Your task to perform on an android device: install app "File Manager" Image 0: 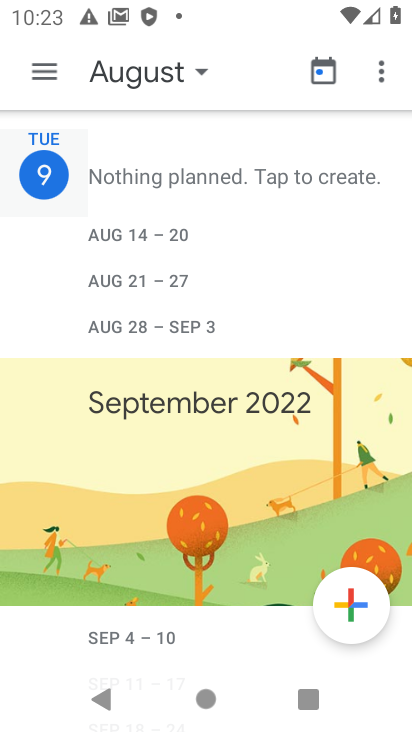
Step 0: press home button
Your task to perform on an android device: install app "File Manager" Image 1: 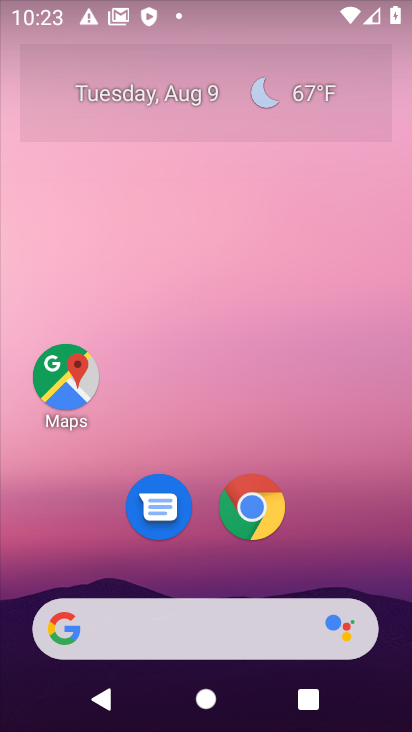
Step 1: drag from (69, 598) to (113, 156)
Your task to perform on an android device: install app "File Manager" Image 2: 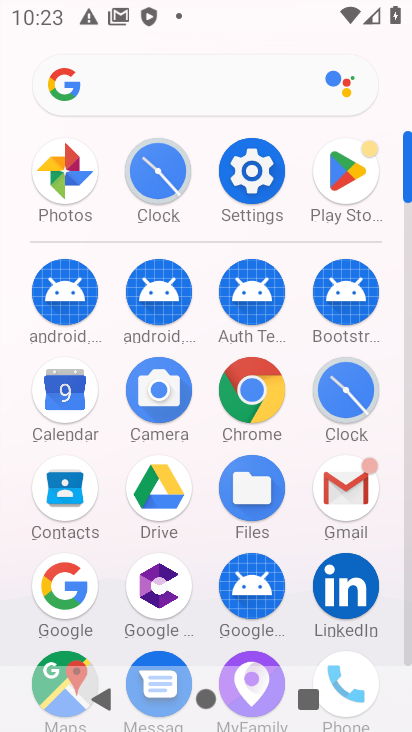
Step 2: click (375, 179)
Your task to perform on an android device: install app "File Manager" Image 3: 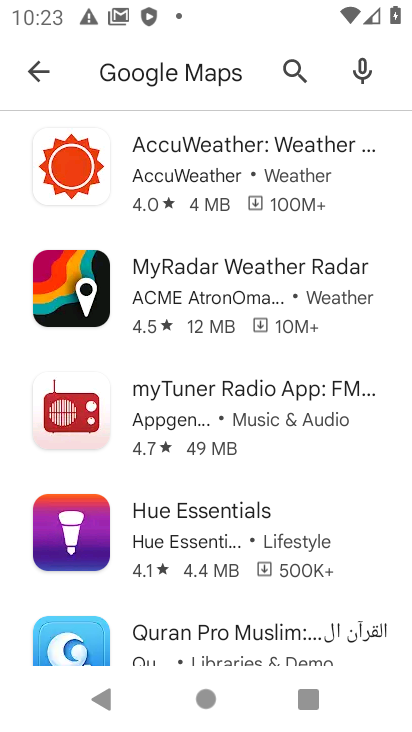
Step 3: click (27, 73)
Your task to perform on an android device: install app "File Manager" Image 4: 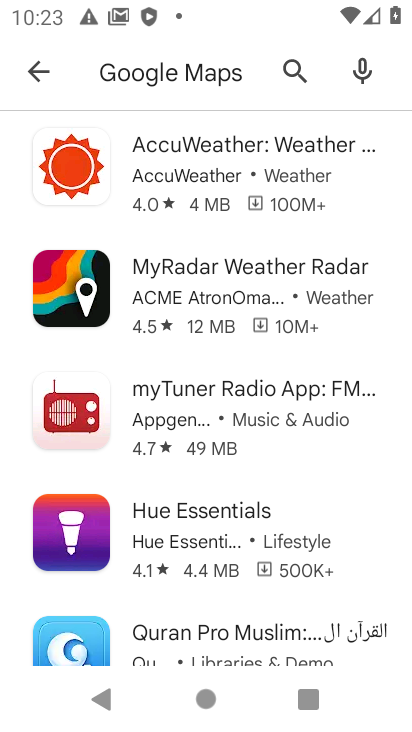
Step 4: click (296, 84)
Your task to perform on an android device: install app "File Manager" Image 5: 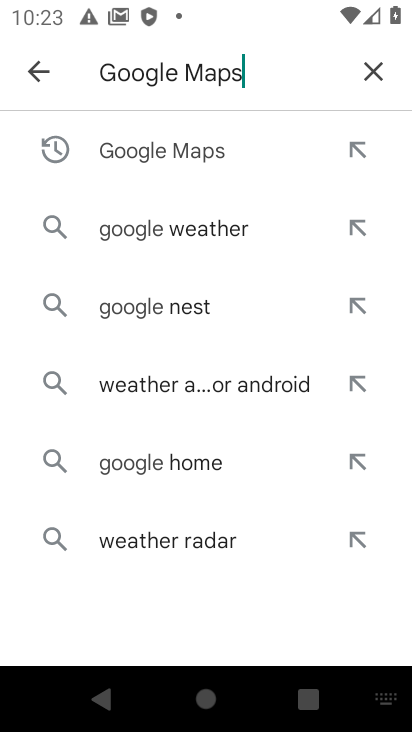
Step 5: click (374, 69)
Your task to perform on an android device: install app "File Manager" Image 6: 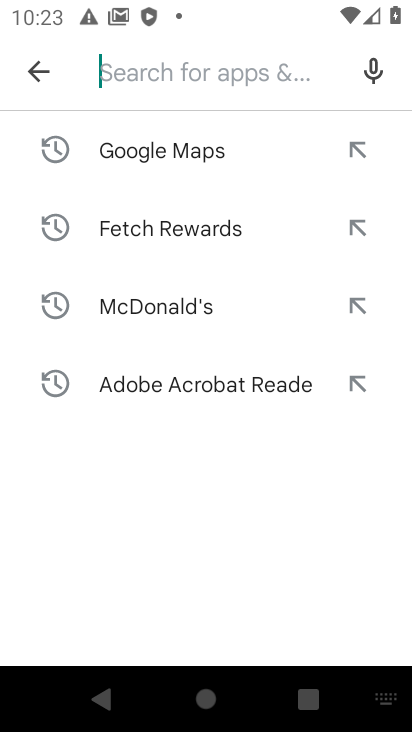
Step 6: type "File Manager"
Your task to perform on an android device: install app "File Manager" Image 7: 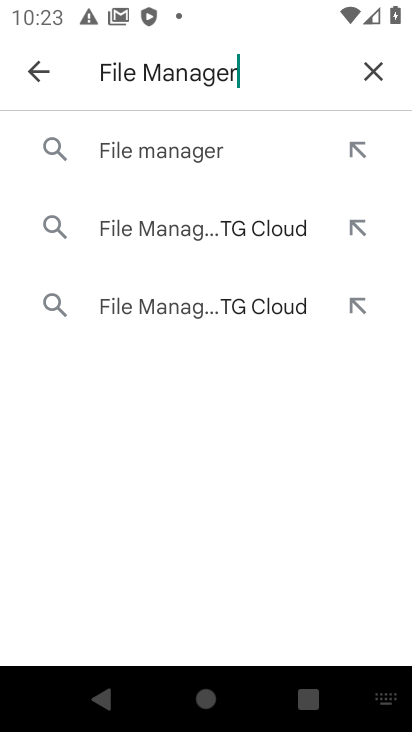
Step 7: click (157, 158)
Your task to perform on an android device: install app "File Manager" Image 8: 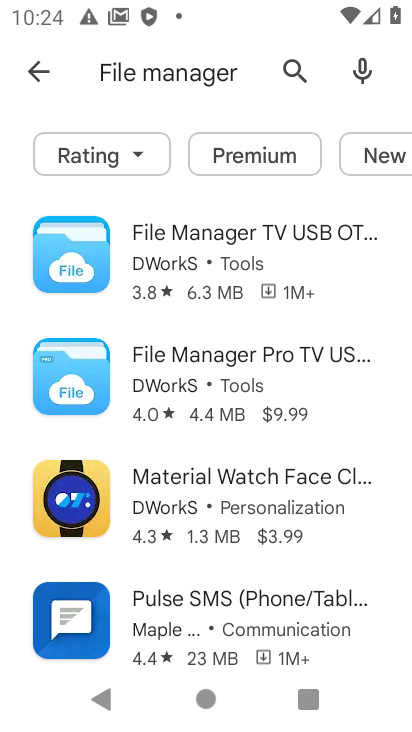
Step 8: task complete